Your task to perform on an android device: turn on wifi Image 0: 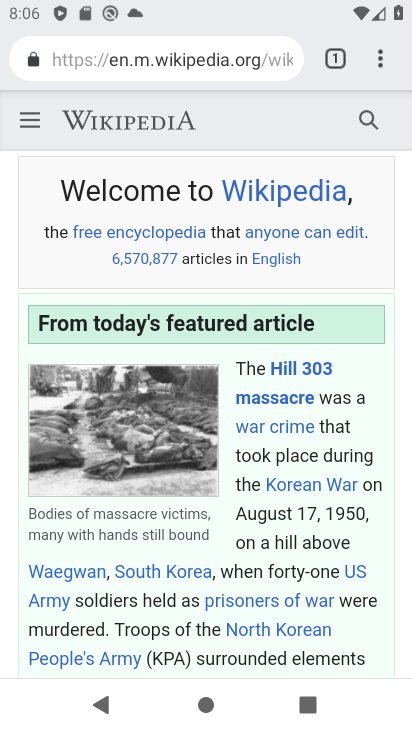
Step 0: press home button
Your task to perform on an android device: turn on wifi Image 1: 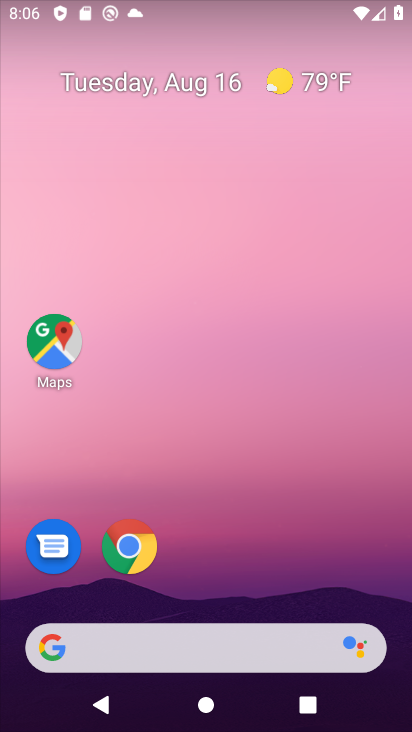
Step 1: drag from (205, 538) to (166, 4)
Your task to perform on an android device: turn on wifi Image 2: 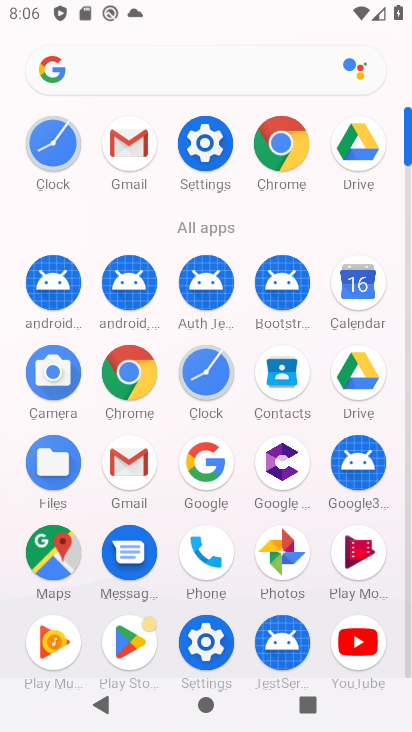
Step 2: click (198, 150)
Your task to perform on an android device: turn on wifi Image 3: 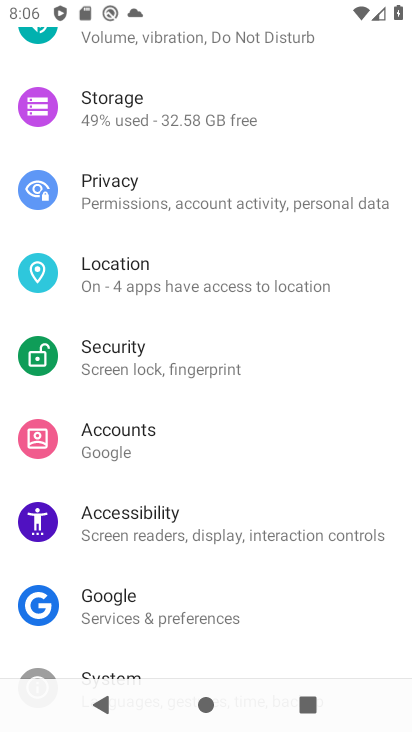
Step 3: drag from (189, 201) to (182, 572)
Your task to perform on an android device: turn on wifi Image 4: 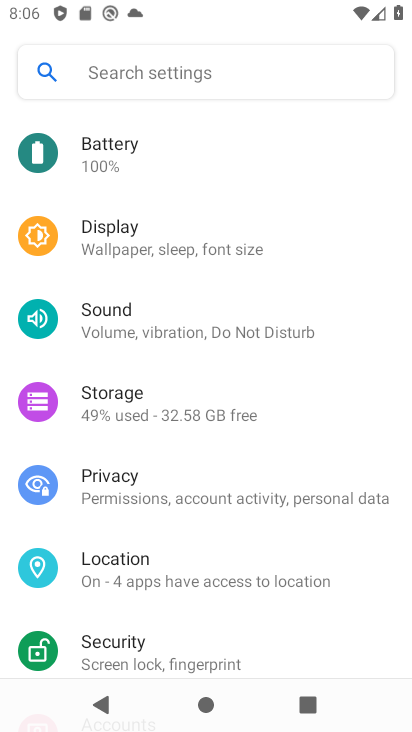
Step 4: drag from (217, 278) to (167, 585)
Your task to perform on an android device: turn on wifi Image 5: 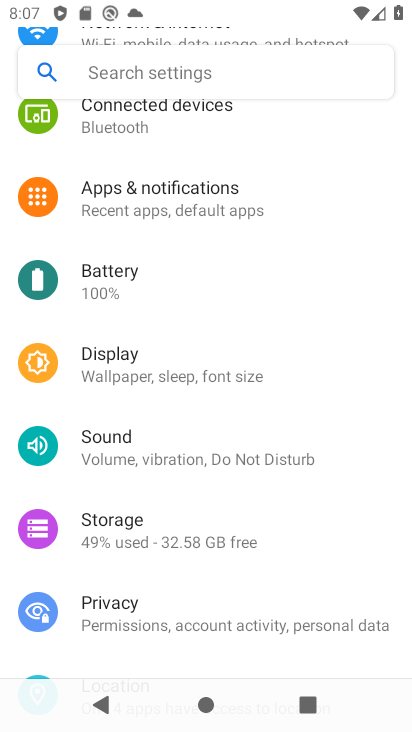
Step 5: drag from (233, 267) to (157, 709)
Your task to perform on an android device: turn on wifi Image 6: 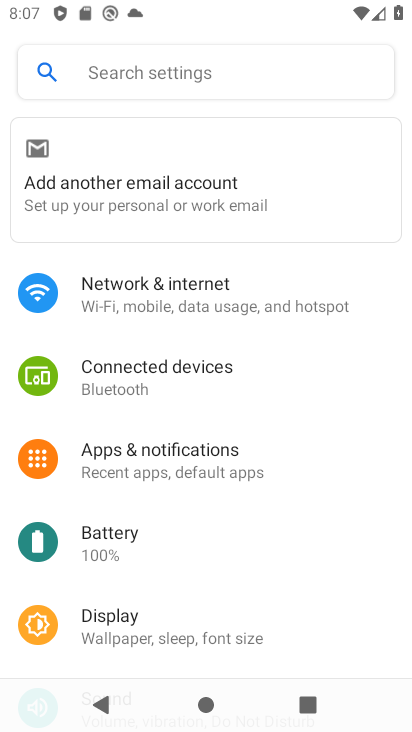
Step 6: click (182, 294)
Your task to perform on an android device: turn on wifi Image 7: 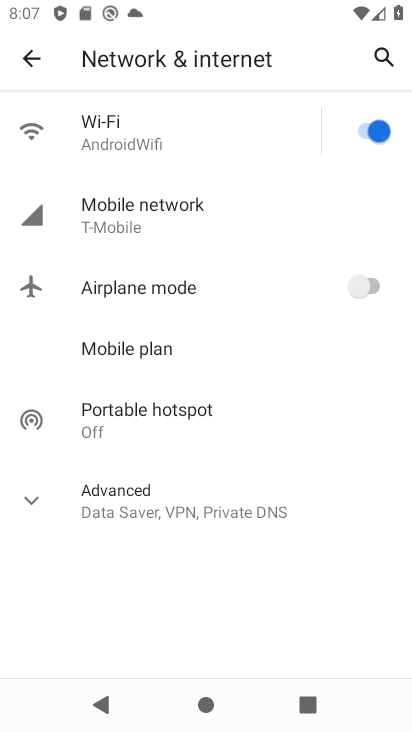
Step 7: task complete